Your task to perform on an android device: Go to wifi settings Image 0: 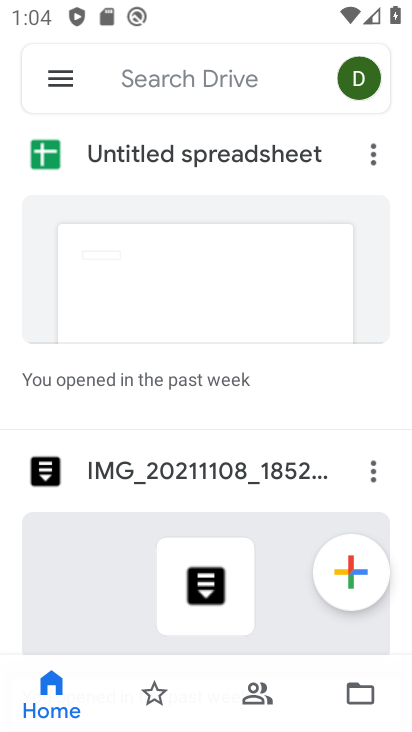
Step 0: task complete